Your task to perform on an android device: Go to accessibility settings Image 0: 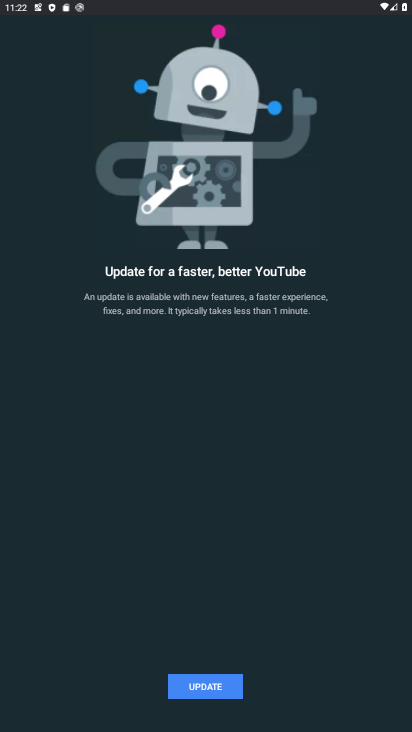
Step 0: press home button
Your task to perform on an android device: Go to accessibility settings Image 1: 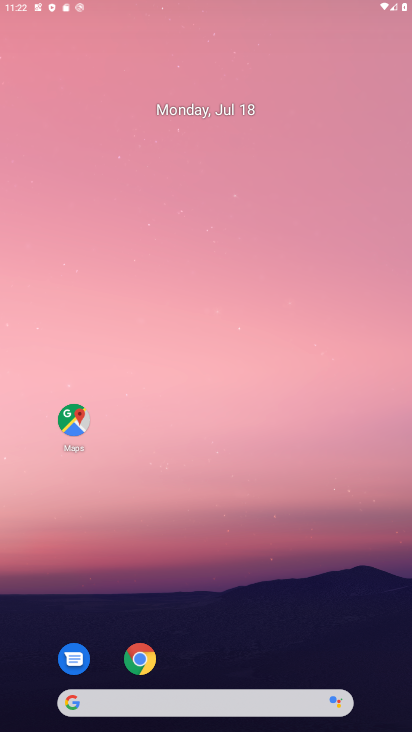
Step 1: drag from (217, 681) to (252, 122)
Your task to perform on an android device: Go to accessibility settings Image 2: 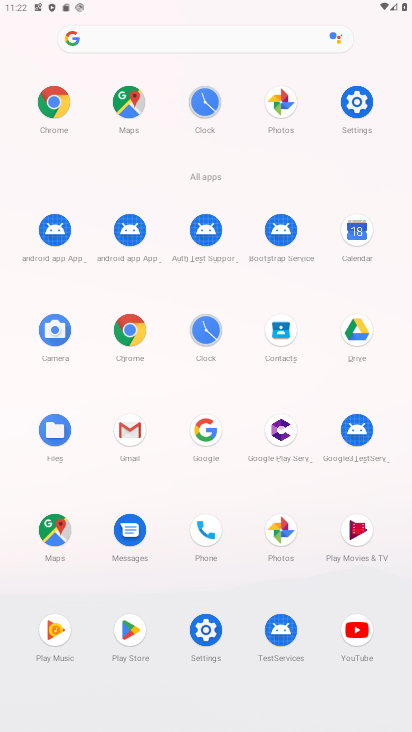
Step 2: click (357, 104)
Your task to perform on an android device: Go to accessibility settings Image 3: 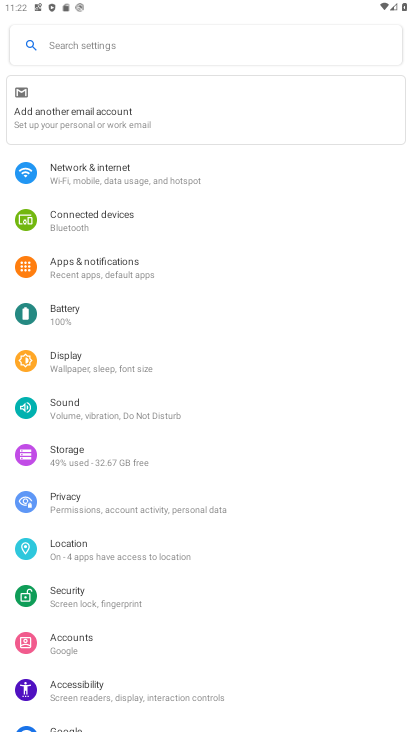
Step 3: click (82, 694)
Your task to perform on an android device: Go to accessibility settings Image 4: 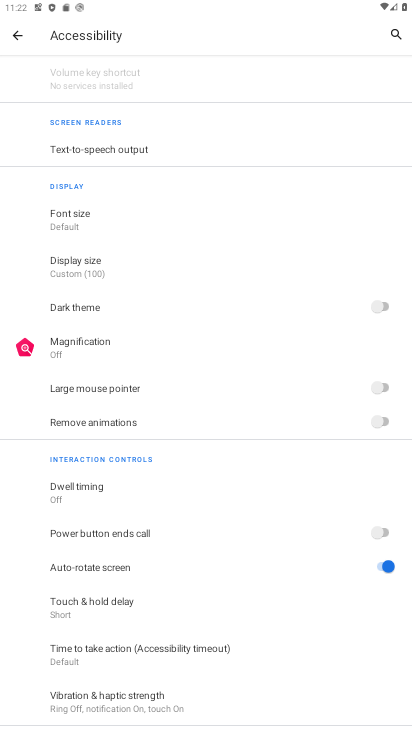
Step 4: task complete